Your task to perform on an android device: Open Google Chrome and open the bookmarks view Image 0: 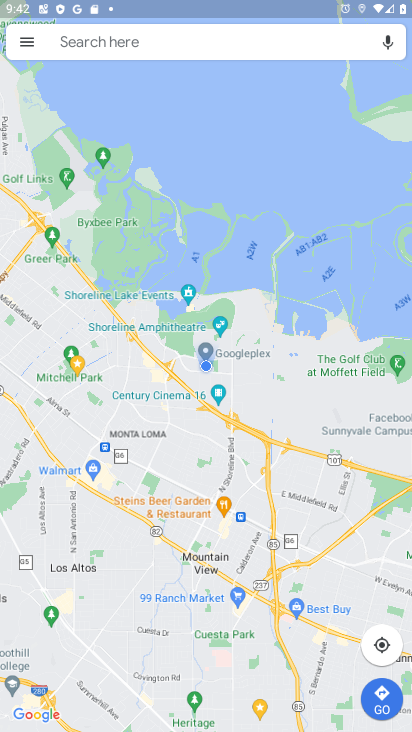
Step 0: press home button
Your task to perform on an android device: Open Google Chrome and open the bookmarks view Image 1: 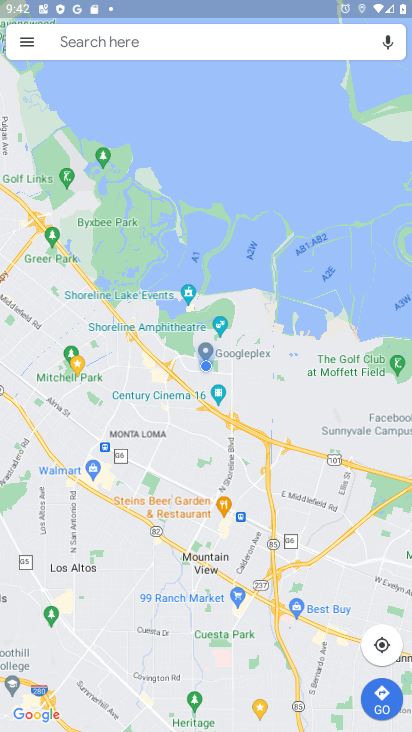
Step 1: press home button
Your task to perform on an android device: Open Google Chrome and open the bookmarks view Image 2: 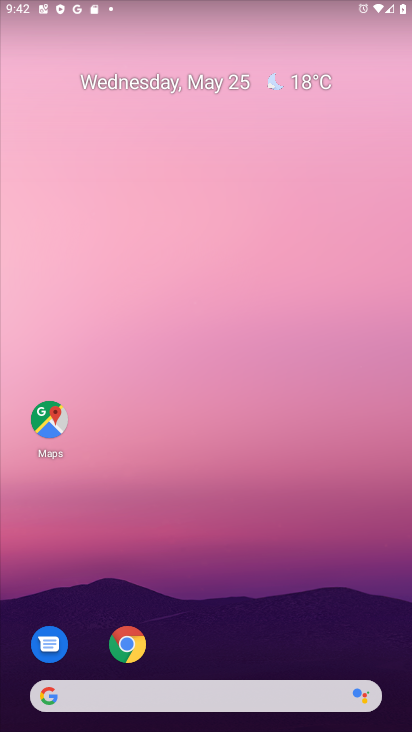
Step 2: click (134, 646)
Your task to perform on an android device: Open Google Chrome and open the bookmarks view Image 3: 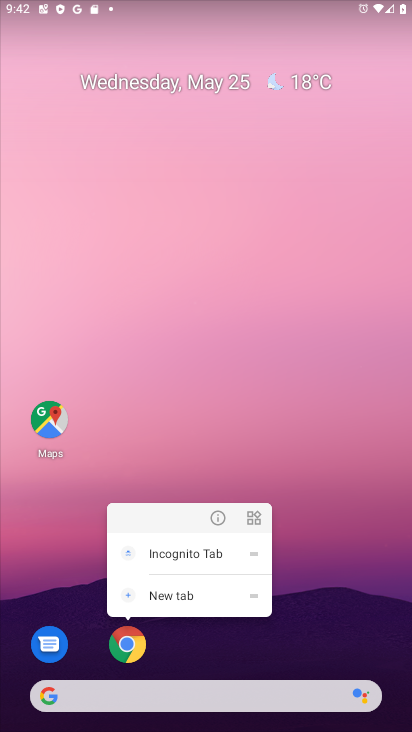
Step 3: click (125, 641)
Your task to perform on an android device: Open Google Chrome and open the bookmarks view Image 4: 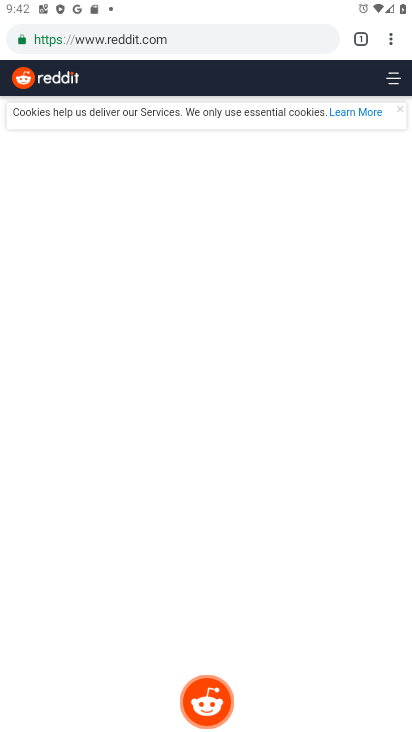
Step 4: click (396, 33)
Your task to perform on an android device: Open Google Chrome and open the bookmarks view Image 5: 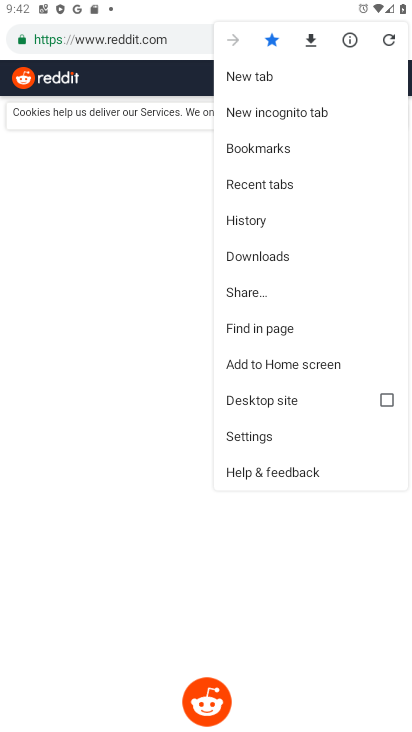
Step 5: click (301, 144)
Your task to perform on an android device: Open Google Chrome and open the bookmarks view Image 6: 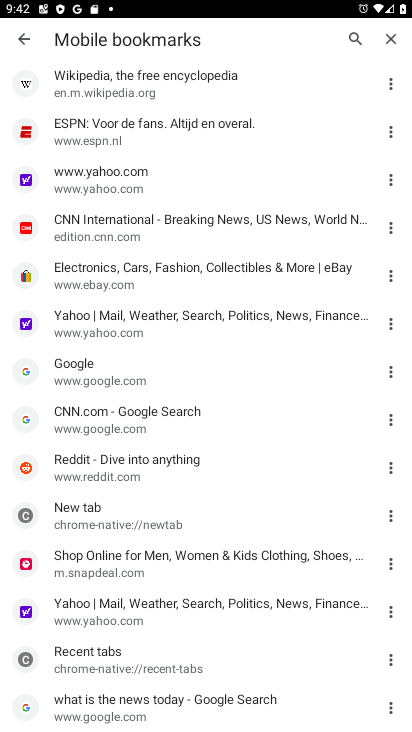
Step 6: task complete